Your task to perform on an android device: Open Chrome and go to settings Image 0: 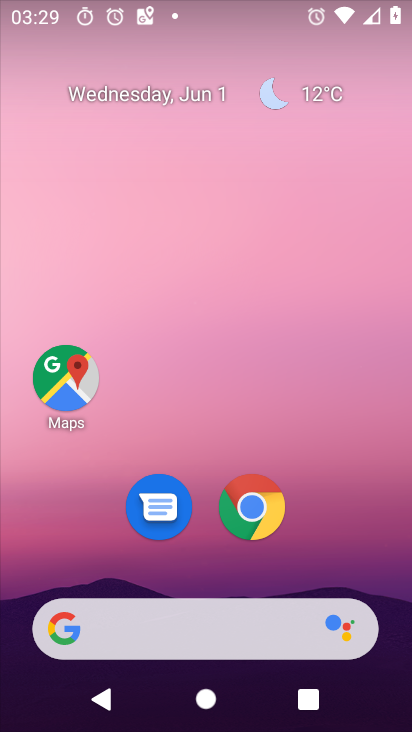
Step 0: click (260, 516)
Your task to perform on an android device: Open Chrome and go to settings Image 1: 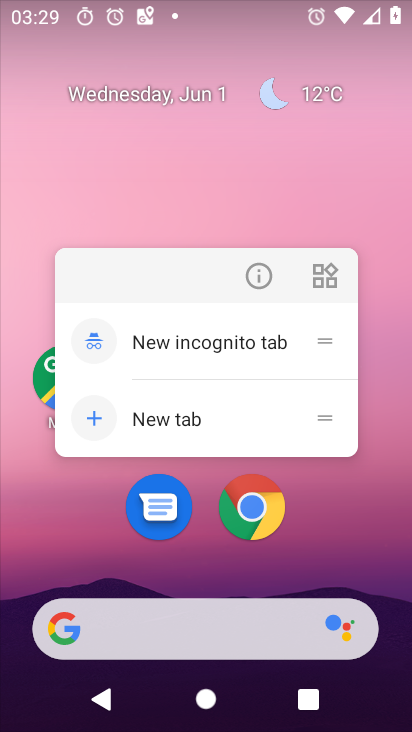
Step 1: click (260, 516)
Your task to perform on an android device: Open Chrome and go to settings Image 2: 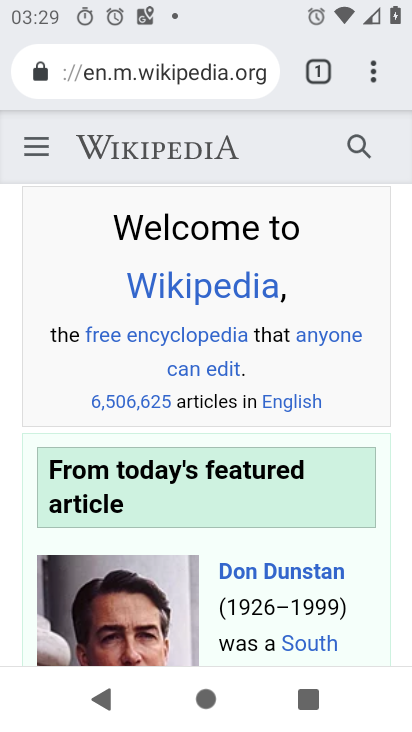
Step 2: task complete